Your task to perform on an android device: Open Google Chrome and open the bookmarks view Image 0: 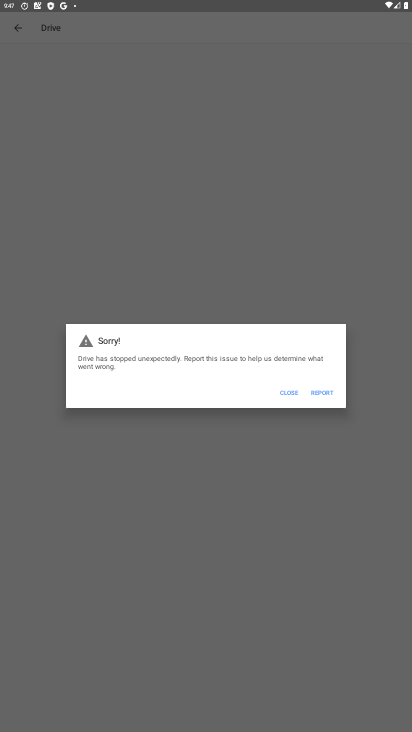
Step 0: press home button
Your task to perform on an android device: Open Google Chrome and open the bookmarks view Image 1: 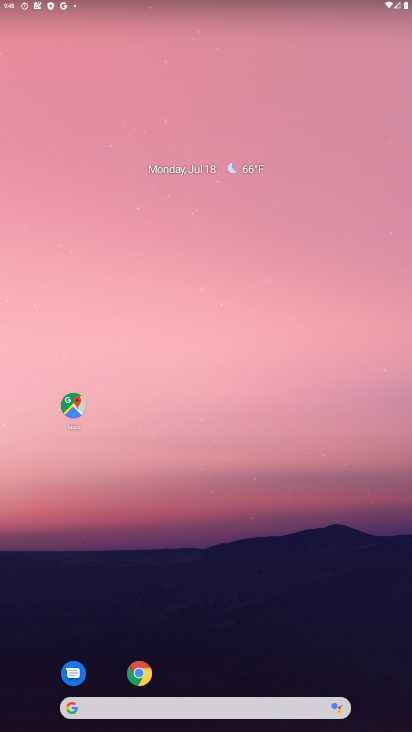
Step 1: click (141, 671)
Your task to perform on an android device: Open Google Chrome and open the bookmarks view Image 2: 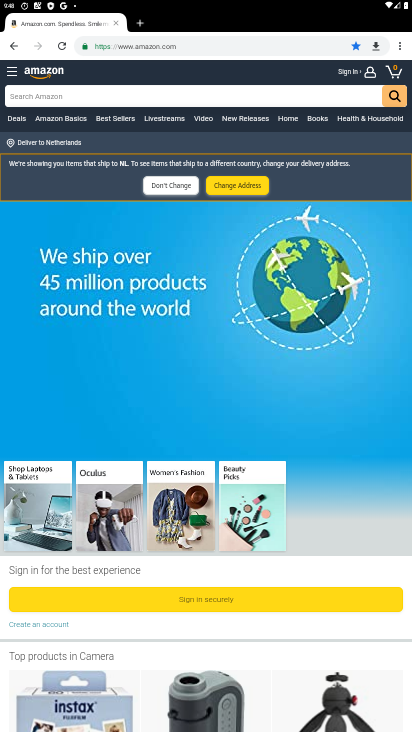
Step 2: click (395, 45)
Your task to perform on an android device: Open Google Chrome and open the bookmarks view Image 3: 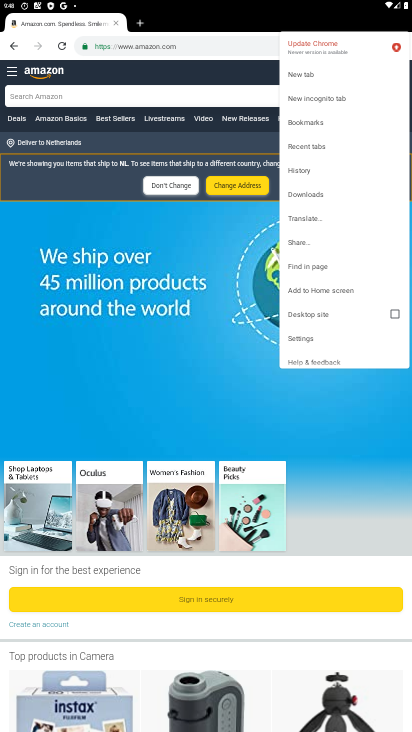
Step 3: click (315, 121)
Your task to perform on an android device: Open Google Chrome and open the bookmarks view Image 4: 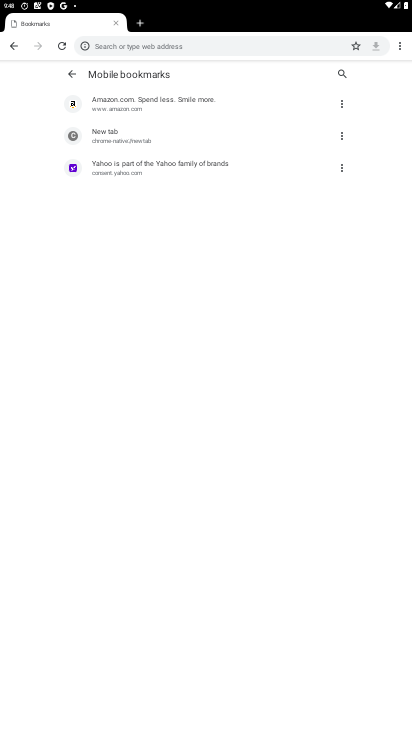
Step 4: click (105, 168)
Your task to perform on an android device: Open Google Chrome and open the bookmarks view Image 5: 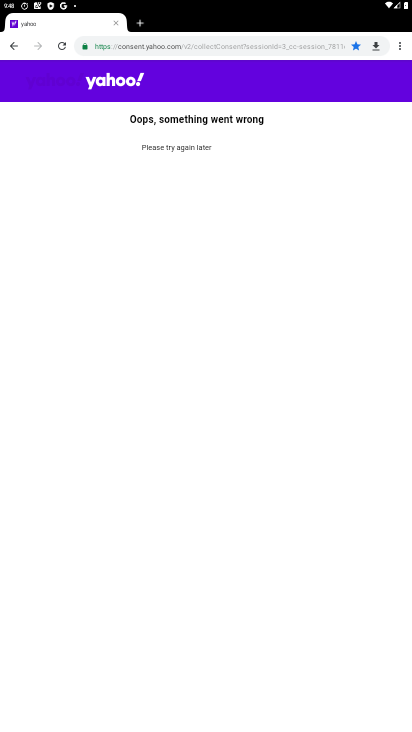
Step 5: task complete